Your task to perform on an android device: open chrome privacy settings Image 0: 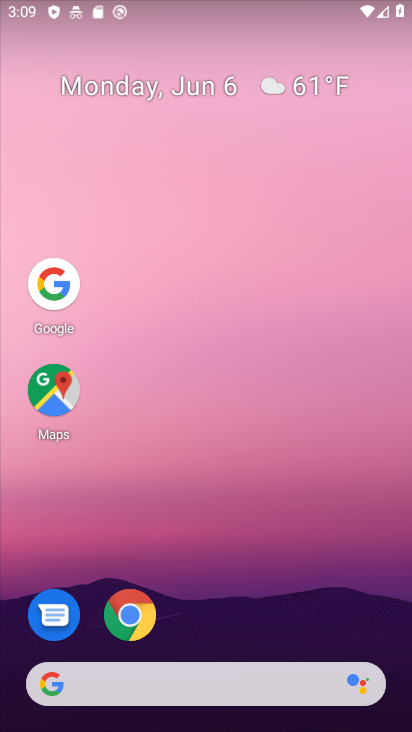
Step 0: click (132, 627)
Your task to perform on an android device: open chrome privacy settings Image 1: 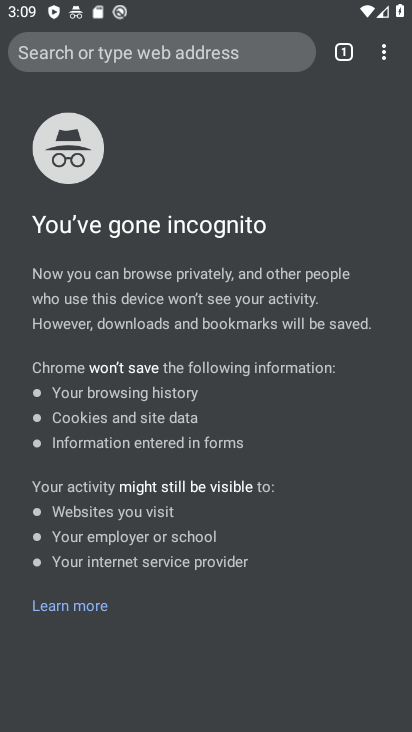
Step 1: click (383, 59)
Your task to perform on an android device: open chrome privacy settings Image 2: 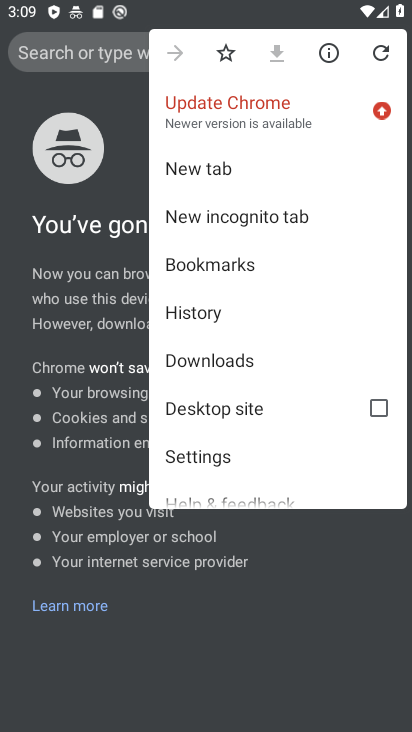
Step 2: click (239, 462)
Your task to perform on an android device: open chrome privacy settings Image 3: 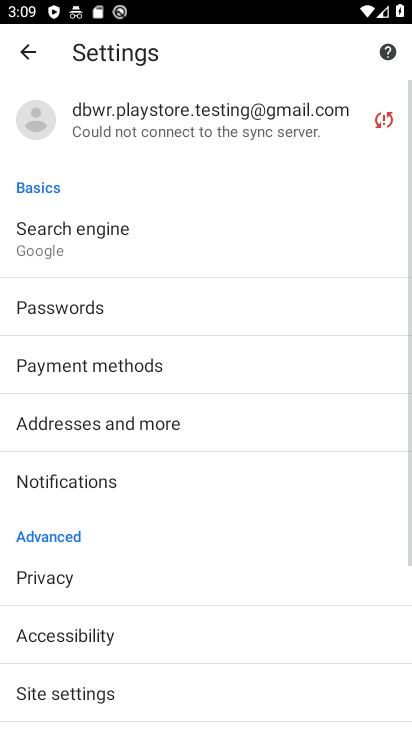
Step 3: drag from (115, 586) to (142, 248)
Your task to perform on an android device: open chrome privacy settings Image 4: 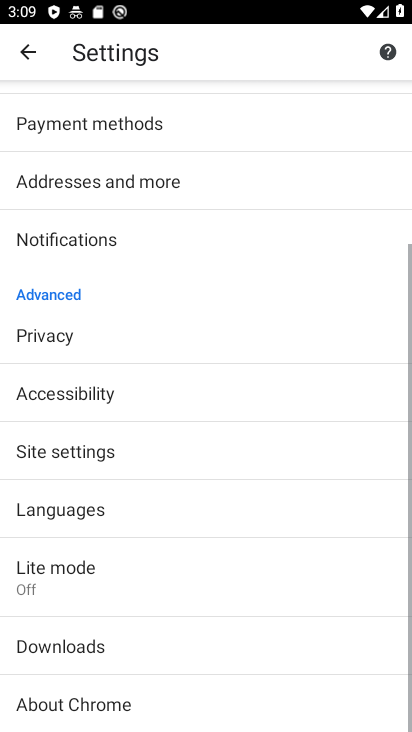
Step 4: click (89, 324)
Your task to perform on an android device: open chrome privacy settings Image 5: 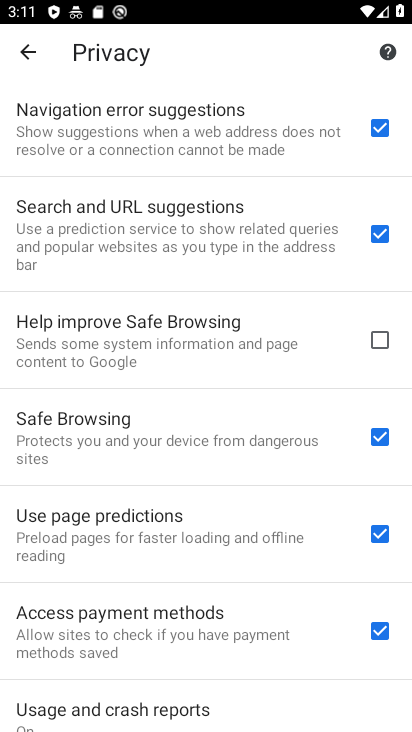
Step 5: task complete